Your task to perform on an android device: see sites visited before in the chrome app Image 0: 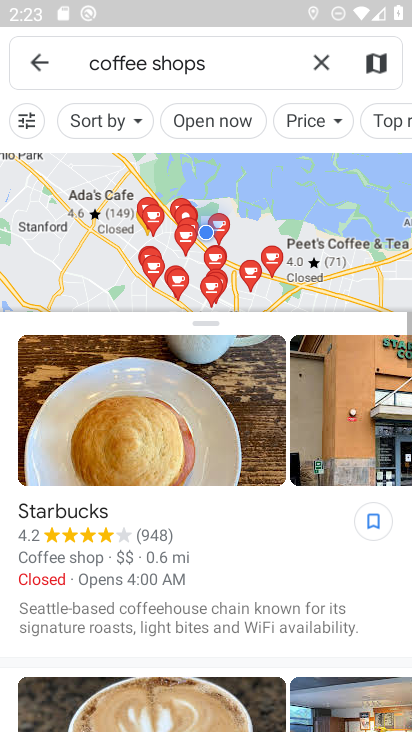
Step 0: press home button
Your task to perform on an android device: see sites visited before in the chrome app Image 1: 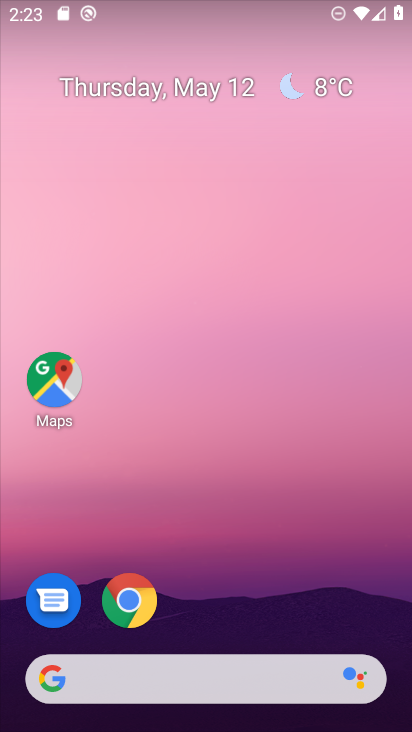
Step 1: click (132, 603)
Your task to perform on an android device: see sites visited before in the chrome app Image 2: 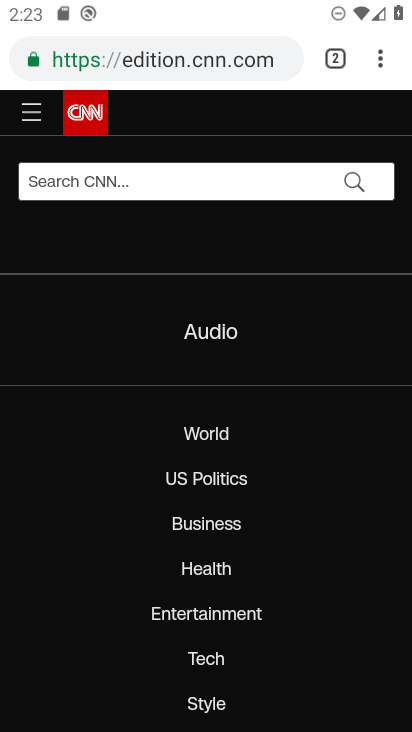
Step 2: click (383, 66)
Your task to perform on an android device: see sites visited before in the chrome app Image 3: 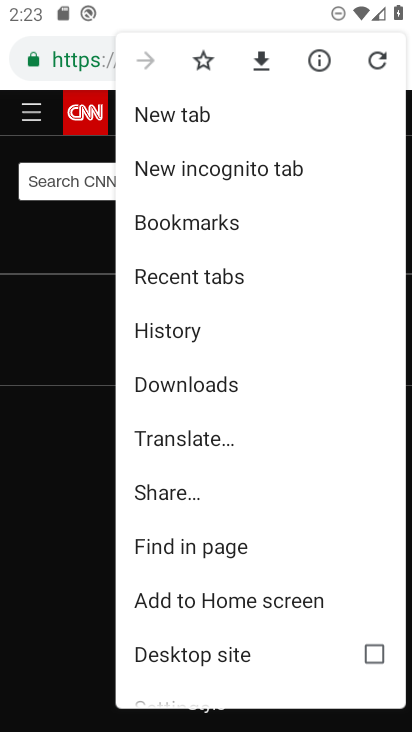
Step 3: drag from (198, 632) to (198, 301)
Your task to perform on an android device: see sites visited before in the chrome app Image 4: 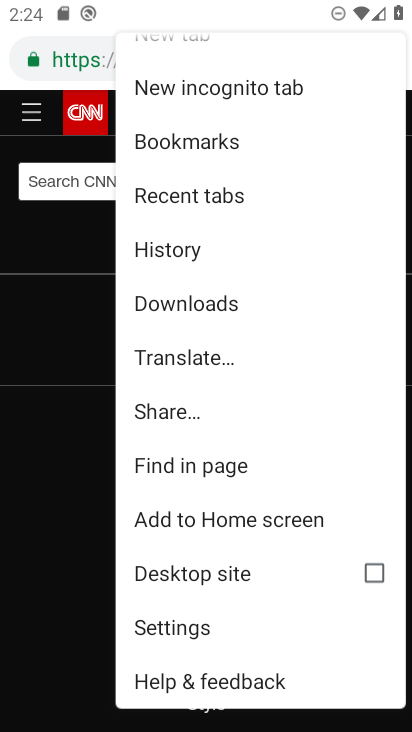
Step 4: click (186, 250)
Your task to perform on an android device: see sites visited before in the chrome app Image 5: 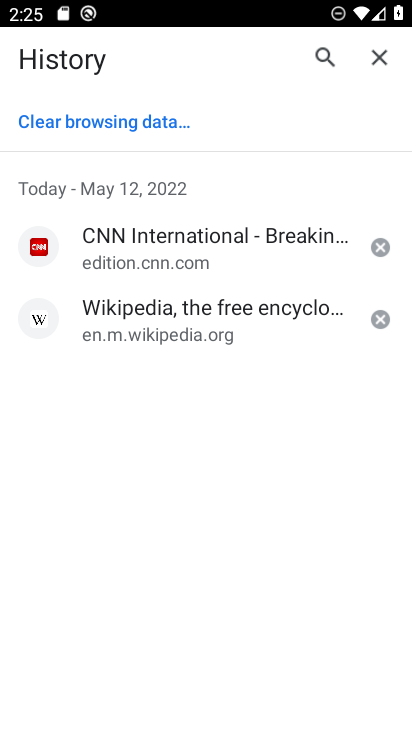
Step 5: task complete